Your task to perform on an android device: What's on my calendar tomorrow? Image 0: 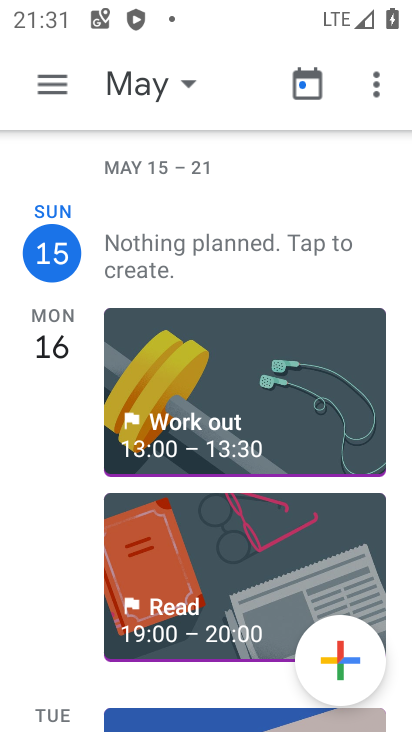
Step 0: click (311, 81)
Your task to perform on an android device: What's on my calendar tomorrow? Image 1: 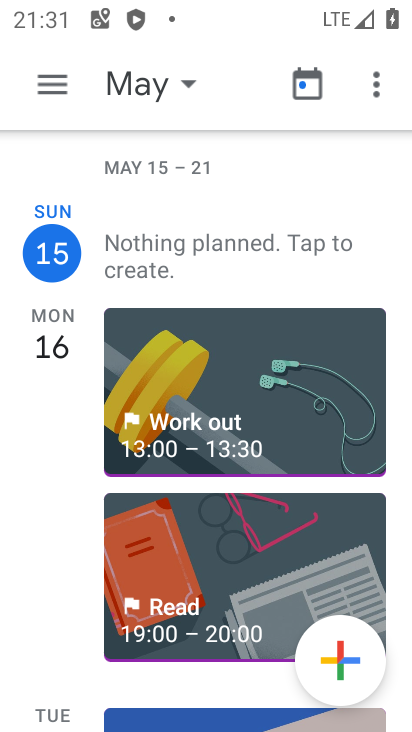
Step 1: click (183, 89)
Your task to perform on an android device: What's on my calendar tomorrow? Image 2: 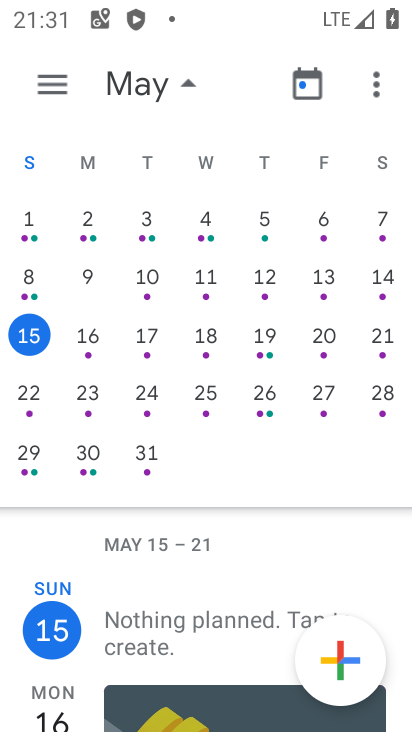
Step 2: click (80, 336)
Your task to perform on an android device: What's on my calendar tomorrow? Image 3: 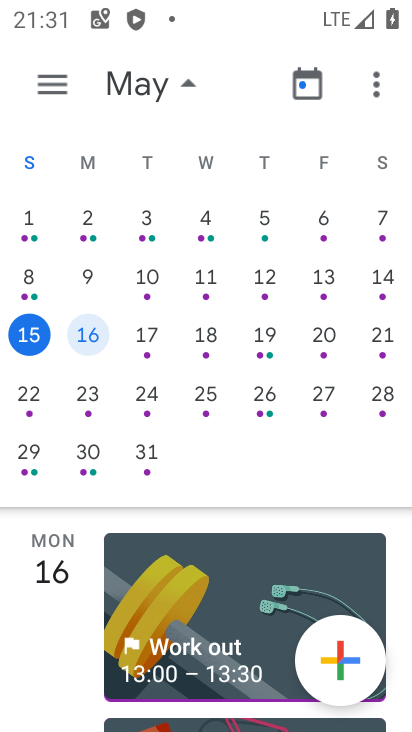
Step 3: click (44, 83)
Your task to perform on an android device: What's on my calendar tomorrow? Image 4: 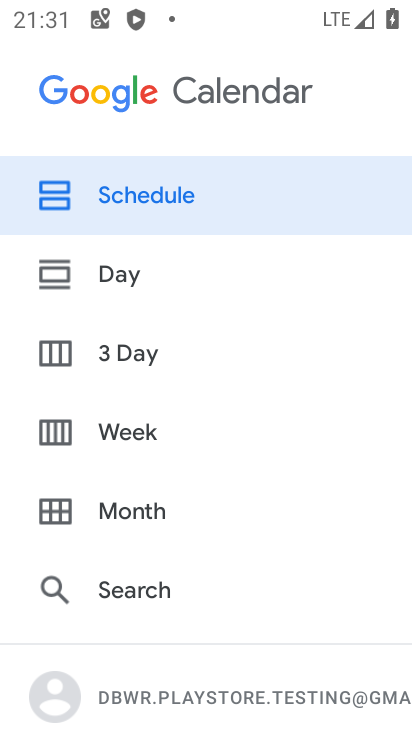
Step 4: click (115, 185)
Your task to perform on an android device: What's on my calendar tomorrow? Image 5: 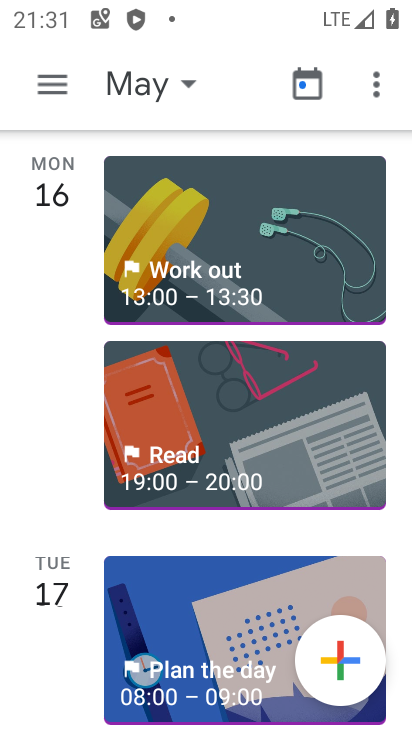
Step 5: task complete